Your task to perform on an android device: Go to Amazon Image 0: 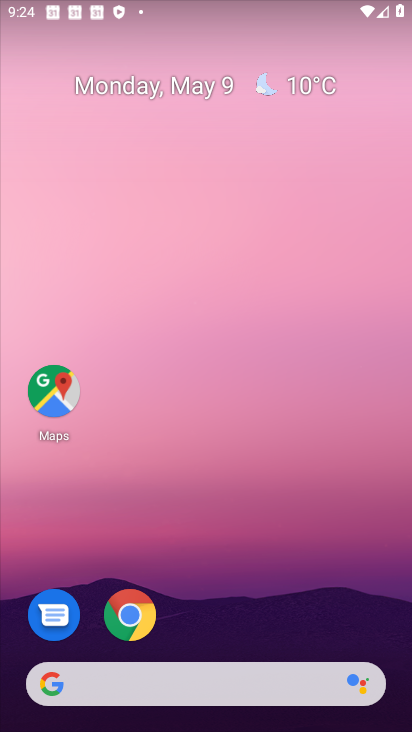
Step 0: click (132, 617)
Your task to perform on an android device: Go to Amazon Image 1: 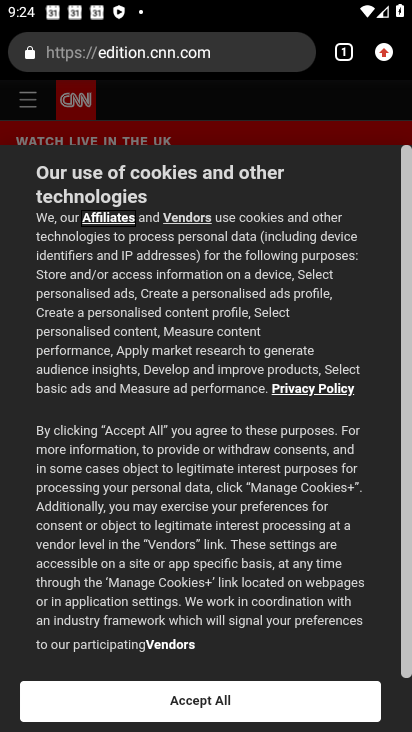
Step 1: drag from (213, 30) to (204, 137)
Your task to perform on an android device: Go to Amazon Image 2: 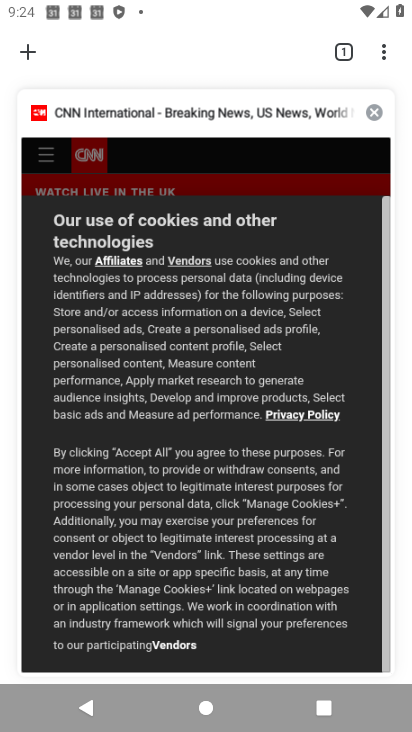
Step 2: click (26, 49)
Your task to perform on an android device: Go to Amazon Image 3: 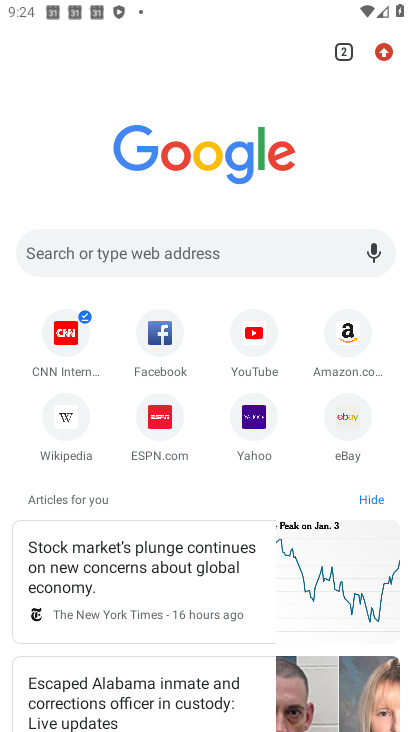
Step 3: click (334, 343)
Your task to perform on an android device: Go to Amazon Image 4: 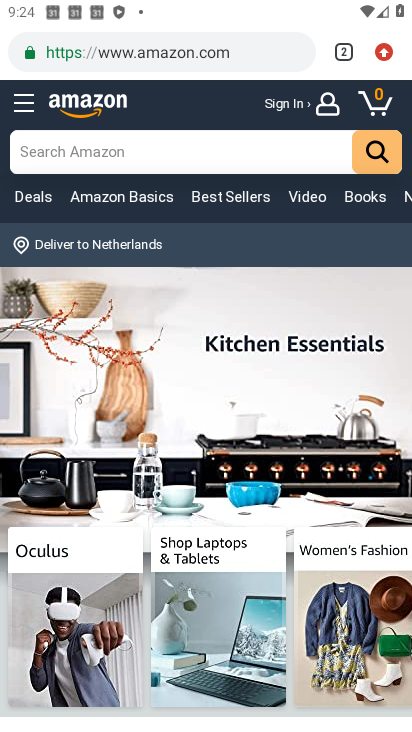
Step 4: task complete